Your task to perform on an android device: Open Youtube and go to the subscriptions tab Image 0: 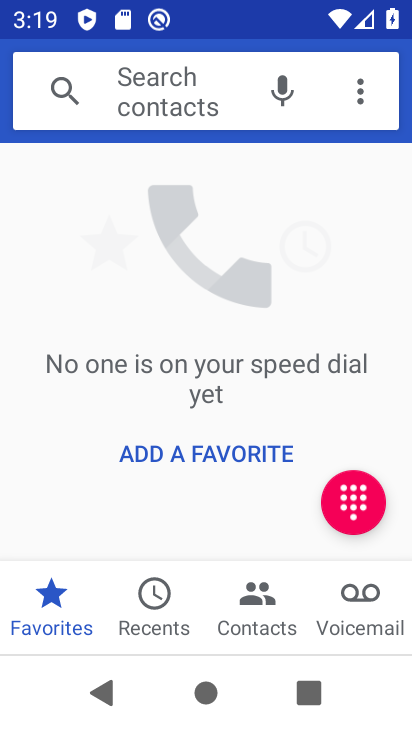
Step 0: press home button
Your task to perform on an android device: Open Youtube and go to the subscriptions tab Image 1: 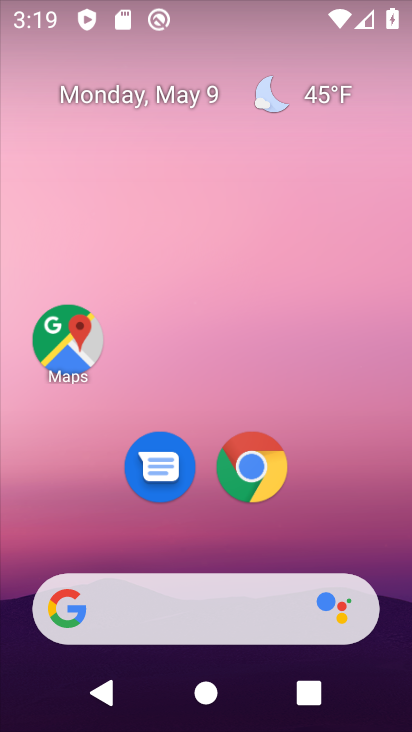
Step 1: drag from (301, 503) to (289, 133)
Your task to perform on an android device: Open Youtube and go to the subscriptions tab Image 2: 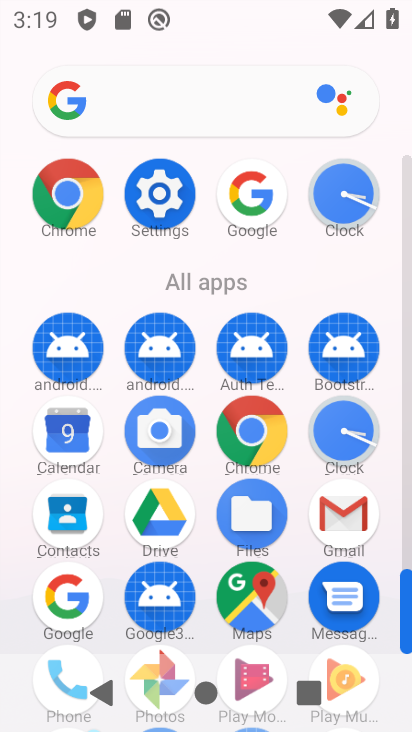
Step 2: drag from (298, 565) to (306, 276)
Your task to perform on an android device: Open Youtube and go to the subscriptions tab Image 3: 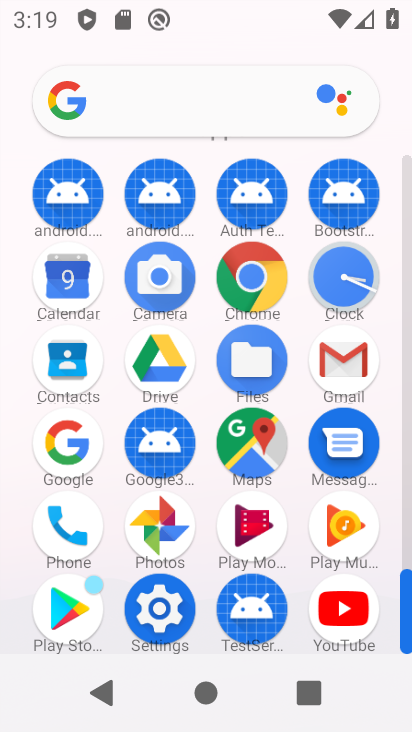
Step 3: click (344, 619)
Your task to perform on an android device: Open Youtube and go to the subscriptions tab Image 4: 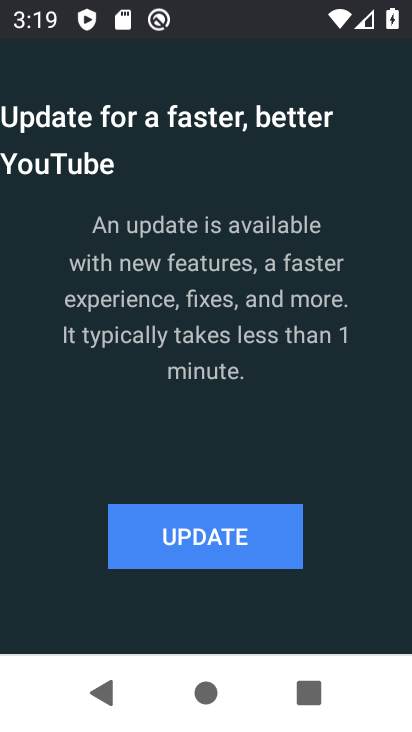
Step 4: click (223, 535)
Your task to perform on an android device: Open Youtube and go to the subscriptions tab Image 5: 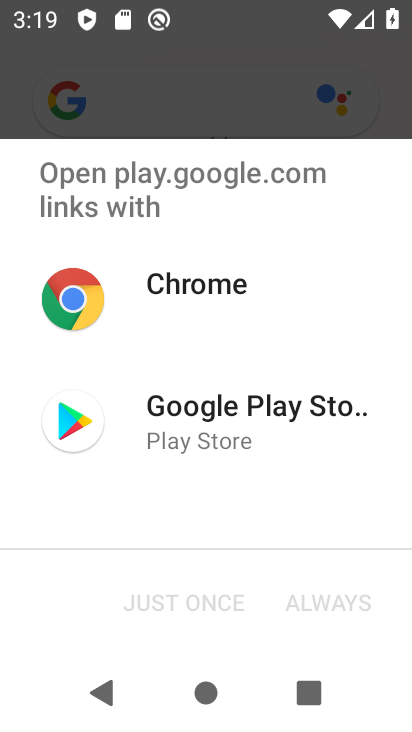
Step 5: click (196, 428)
Your task to perform on an android device: Open Youtube and go to the subscriptions tab Image 6: 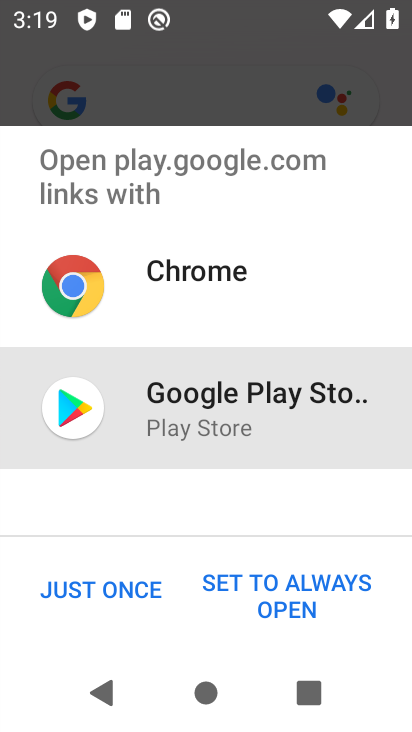
Step 6: click (131, 595)
Your task to perform on an android device: Open Youtube and go to the subscriptions tab Image 7: 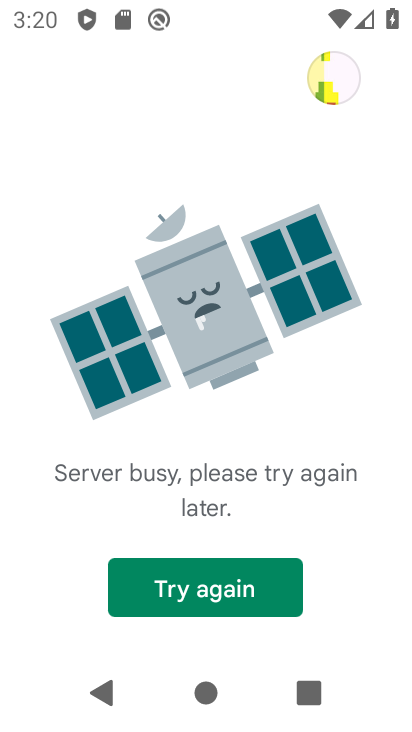
Step 7: task complete